Your task to perform on an android device: Go to Google Image 0: 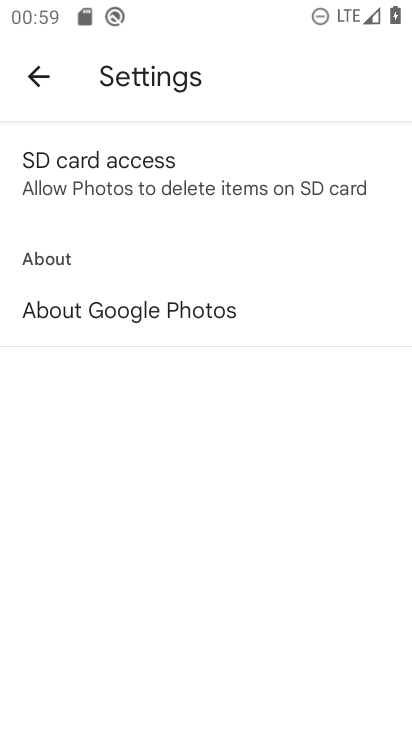
Step 0: press home button
Your task to perform on an android device: Go to Google Image 1: 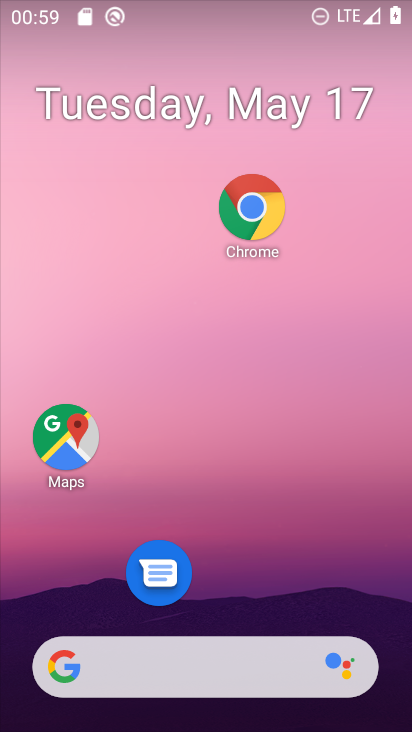
Step 1: drag from (250, 651) to (351, 30)
Your task to perform on an android device: Go to Google Image 2: 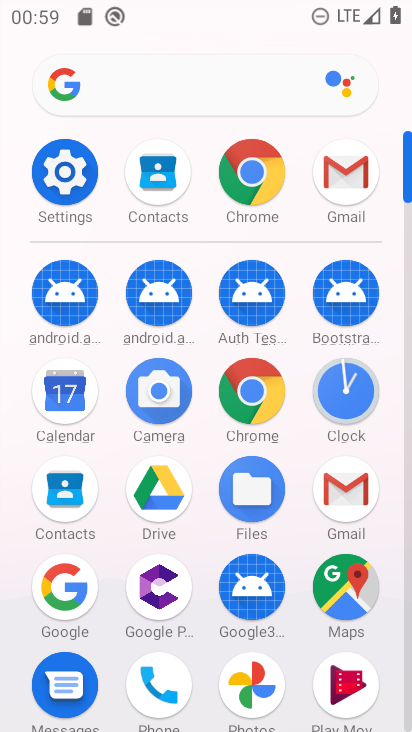
Step 2: click (262, 399)
Your task to perform on an android device: Go to Google Image 3: 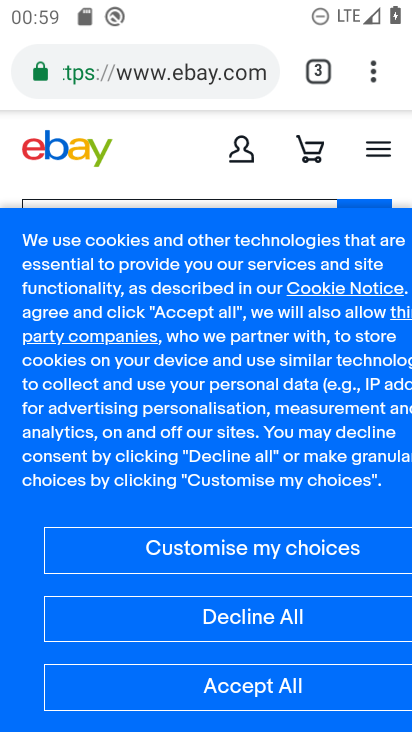
Step 3: task complete